Your task to perform on an android device: Open Chrome and go to the settings page Image 0: 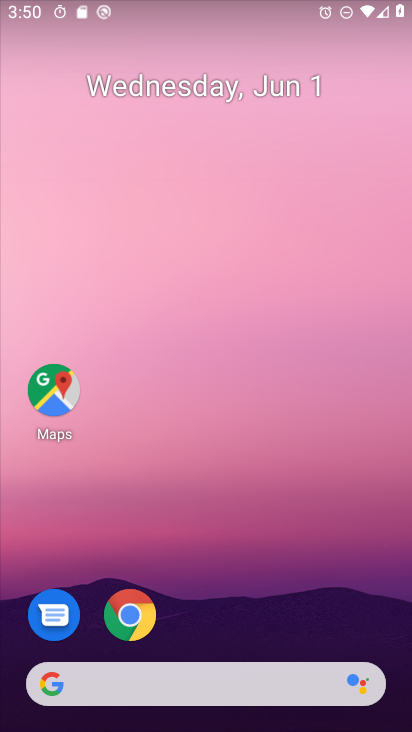
Step 0: press home button
Your task to perform on an android device: Open Chrome and go to the settings page Image 1: 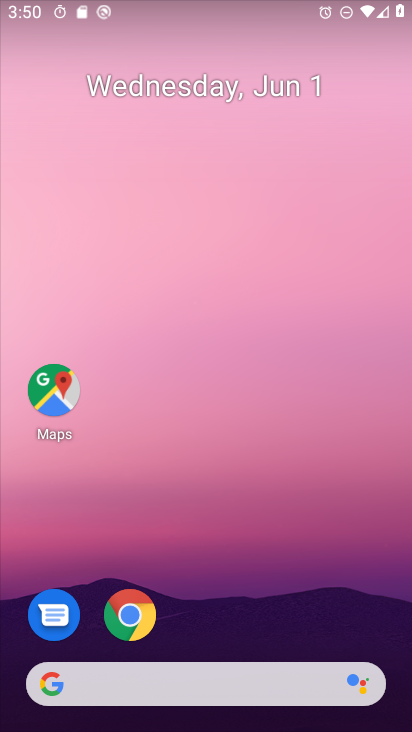
Step 1: drag from (270, 625) to (283, 71)
Your task to perform on an android device: Open Chrome and go to the settings page Image 2: 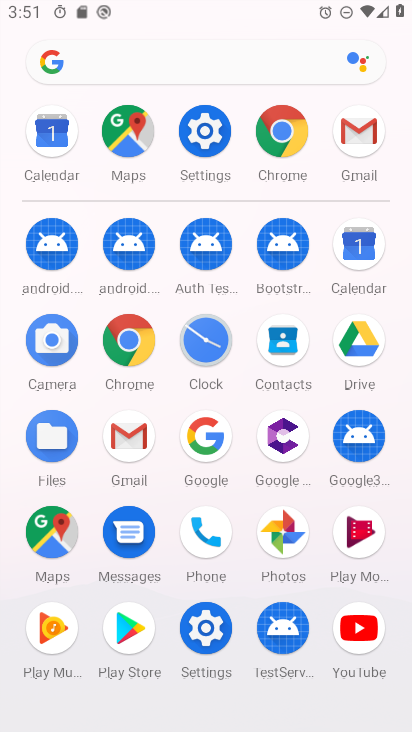
Step 2: click (284, 144)
Your task to perform on an android device: Open Chrome and go to the settings page Image 3: 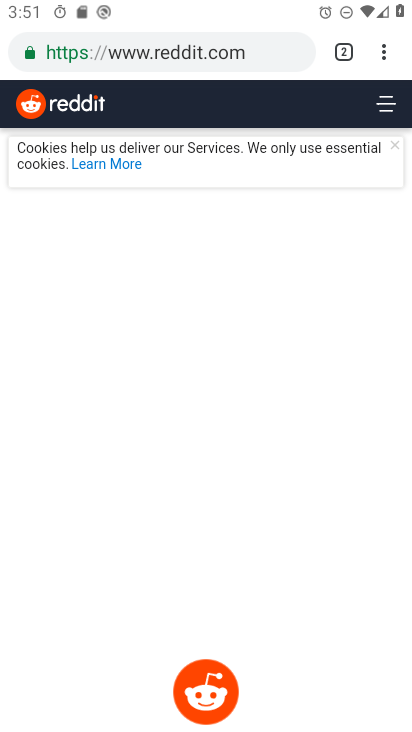
Step 3: click (384, 55)
Your task to perform on an android device: Open Chrome and go to the settings page Image 4: 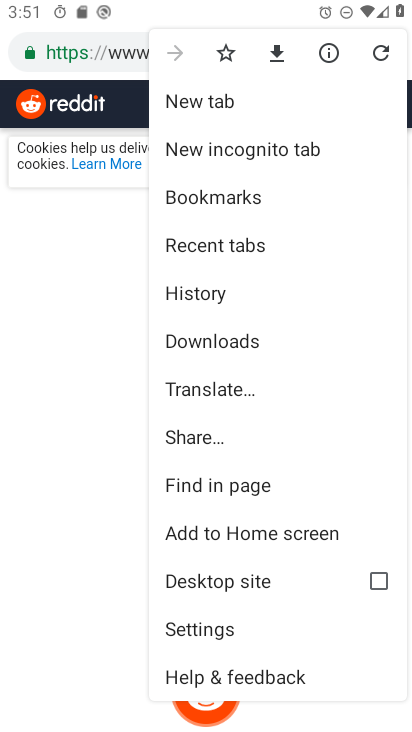
Step 4: click (207, 638)
Your task to perform on an android device: Open Chrome and go to the settings page Image 5: 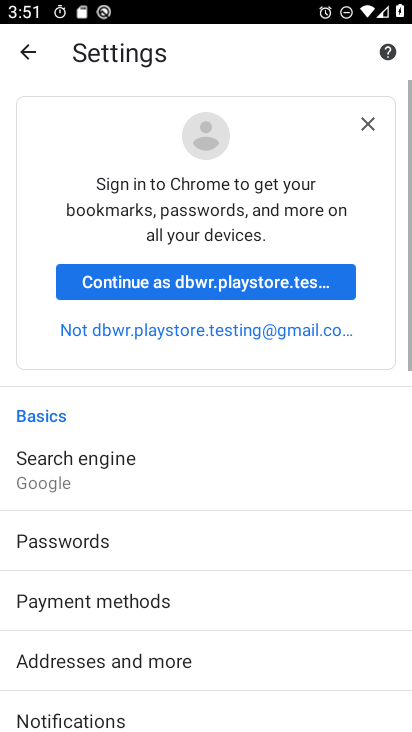
Step 5: drag from (311, 517) to (264, 99)
Your task to perform on an android device: Open Chrome and go to the settings page Image 6: 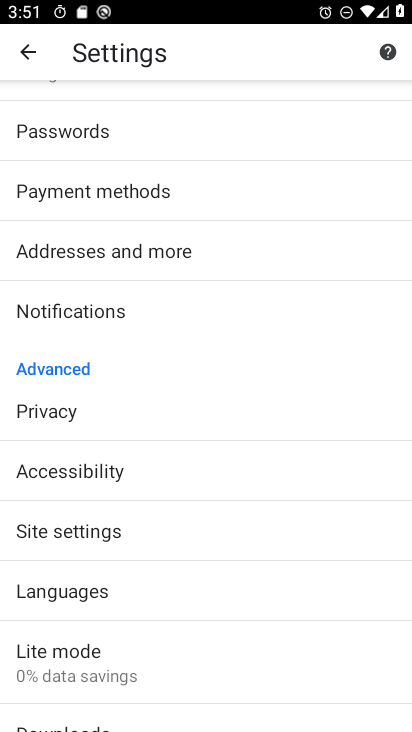
Step 6: drag from (267, 658) to (259, 405)
Your task to perform on an android device: Open Chrome and go to the settings page Image 7: 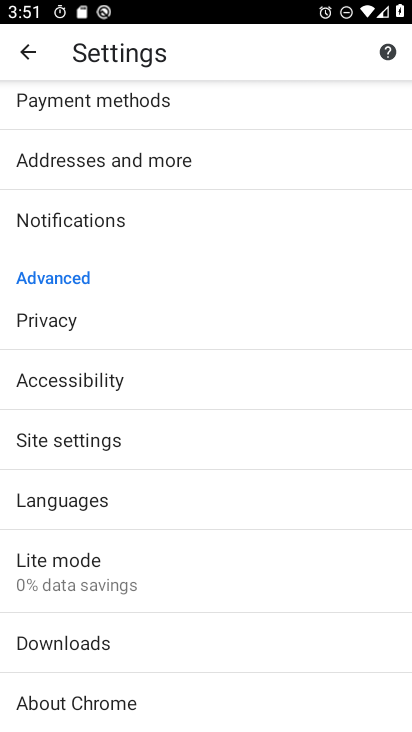
Step 7: drag from (264, 670) to (248, 368)
Your task to perform on an android device: Open Chrome and go to the settings page Image 8: 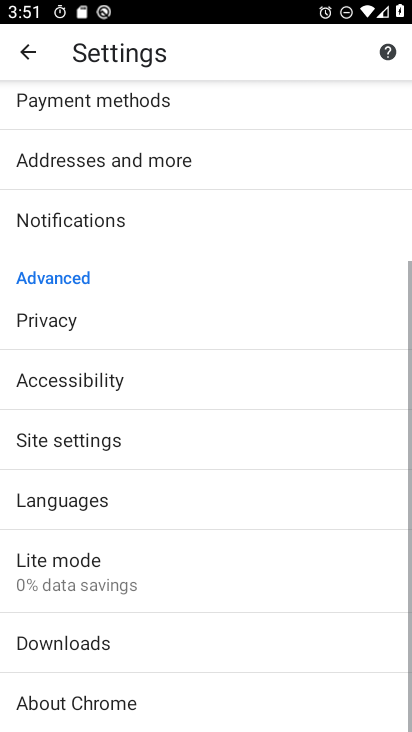
Step 8: click (166, 446)
Your task to perform on an android device: Open Chrome and go to the settings page Image 9: 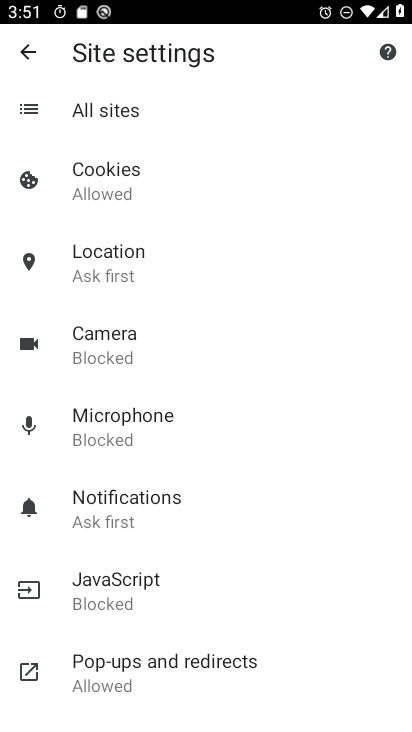
Step 9: task complete